Your task to perform on an android device: snooze an email in the gmail app Image 0: 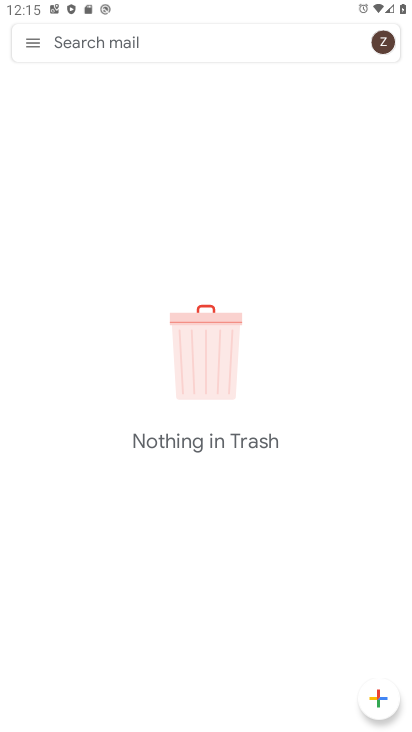
Step 0: press home button
Your task to perform on an android device: snooze an email in the gmail app Image 1: 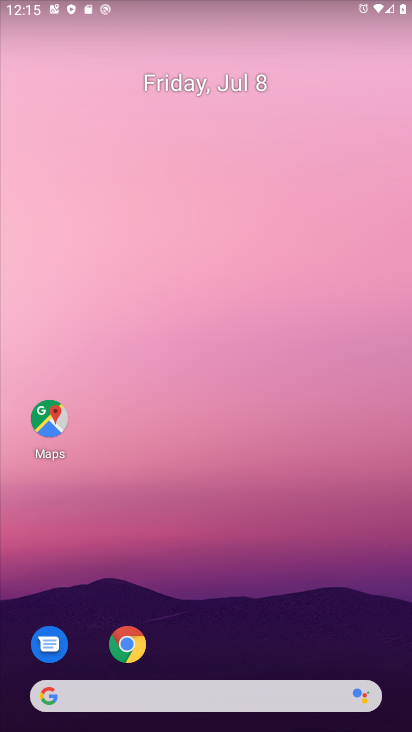
Step 1: drag from (215, 635) to (247, 16)
Your task to perform on an android device: snooze an email in the gmail app Image 2: 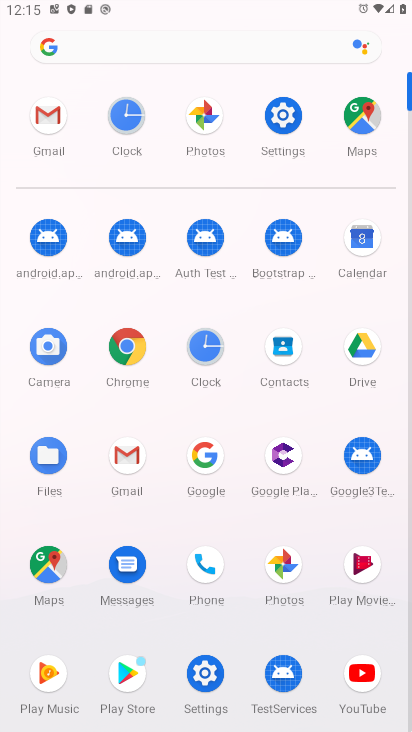
Step 2: click (124, 504)
Your task to perform on an android device: snooze an email in the gmail app Image 3: 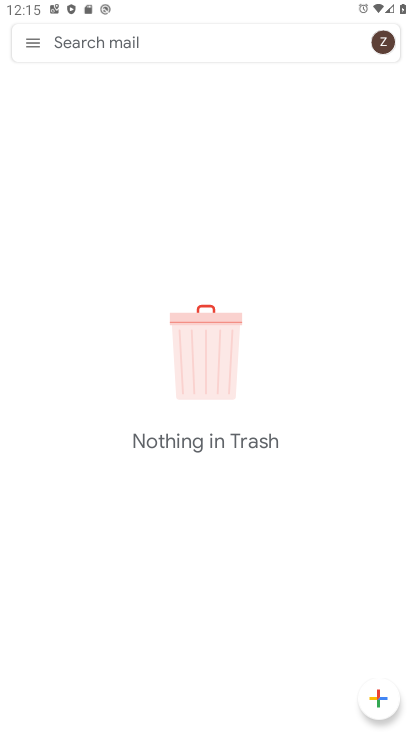
Step 3: click (32, 47)
Your task to perform on an android device: snooze an email in the gmail app Image 4: 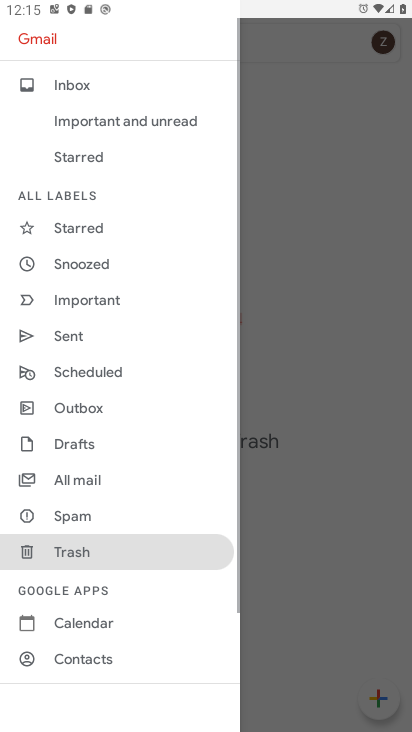
Step 4: click (33, 42)
Your task to perform on an android device: snooze an email in the gmail app Image 5: 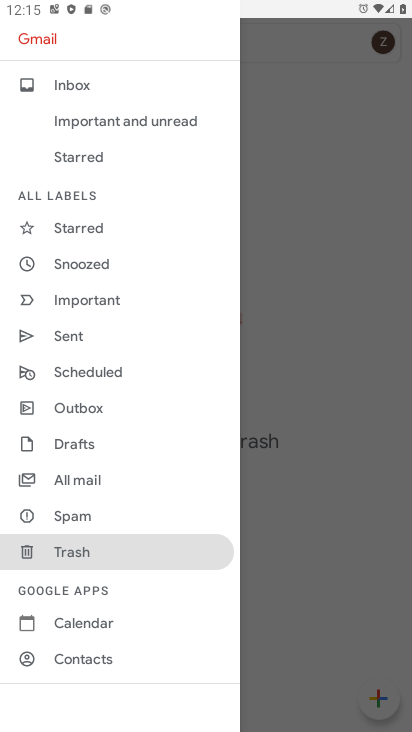
Step 5: click (84, 89)
Your task to perform on an android device: snooze an email in the gmail app Image 6: 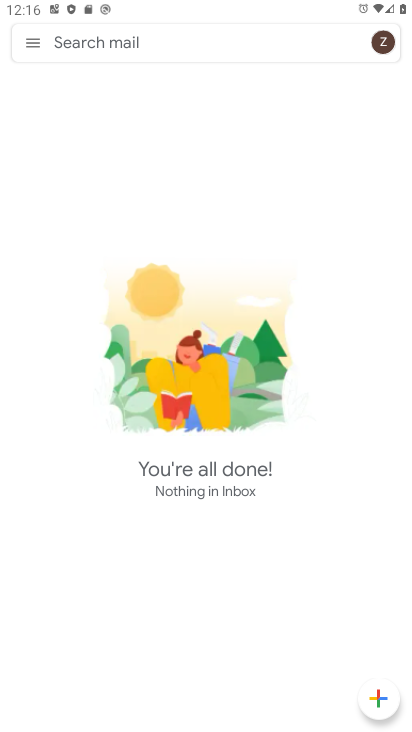
Step 6: task complete